Your task to perform on an android device: search for starred emails in the gmail app Image 0: 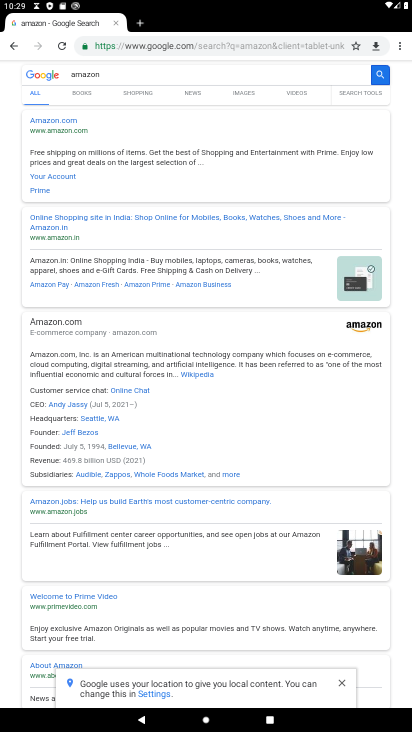
Step 0: press home button
Your task to perform on an android device: search for starred emails in the gmail app Image 1: 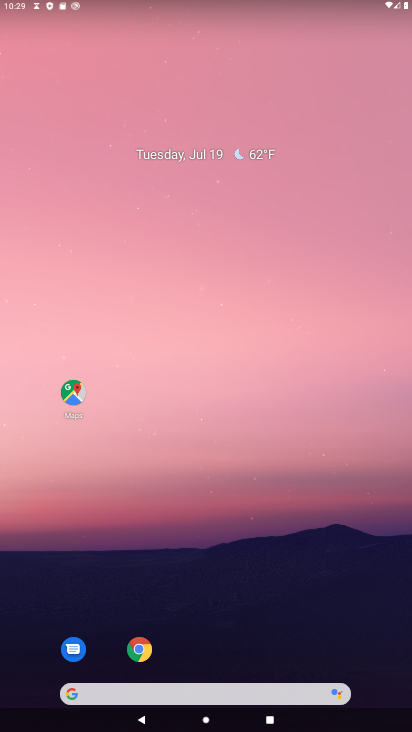
Step 1: drag from (272, 643) to (265, 94)
Your task to perform on an android device: search for starred emails in the gmail app Image 2: 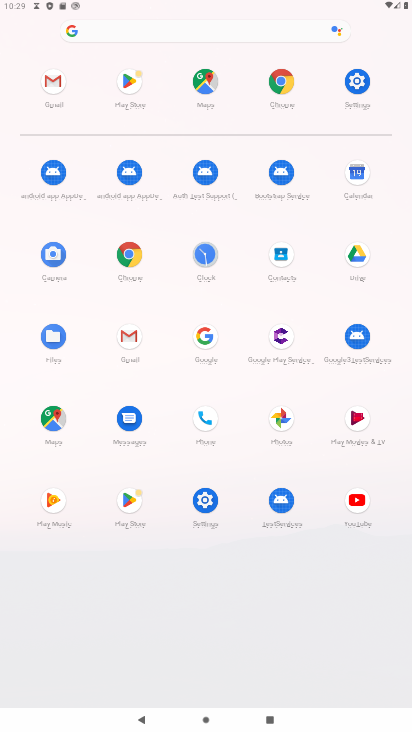
Step 2: click (136, 331)
Your task to perform on an android device: search for starred emails in the gmail app Image 3: 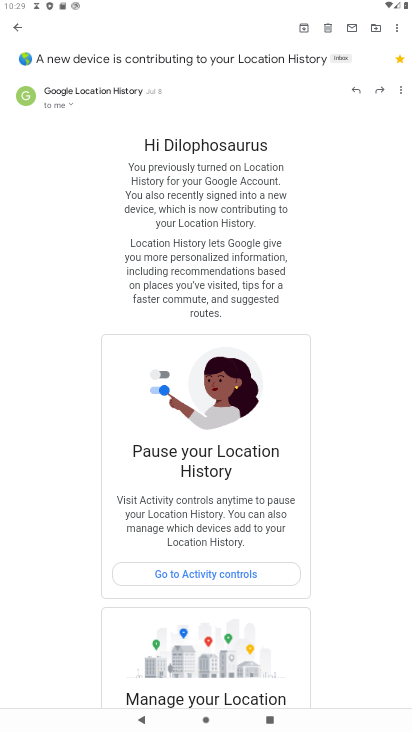
Step 3: press back button
Your task to perform on an android device: search for starred emails in the gmail app Image 4: 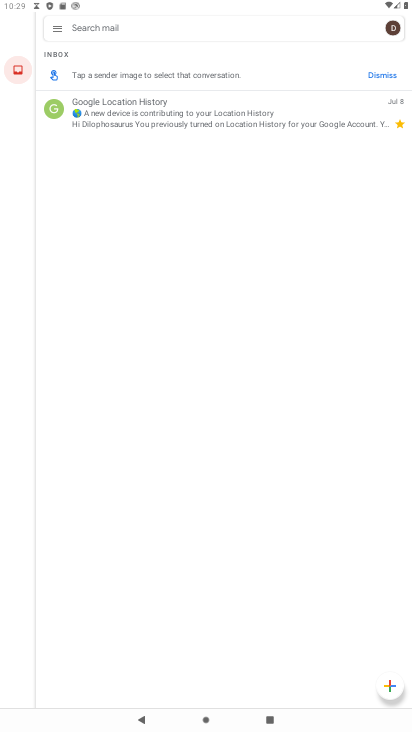
Step 4: press back button
Your task to perform on an android device: search for starred emails in the gmail app Image 5: 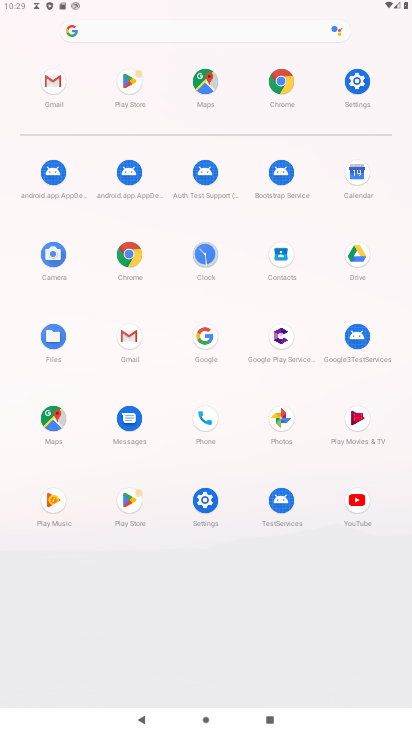
Step 5: click (134, 347)
Your task to perform on an android device: search for starred emails in the gmail app Image 6: 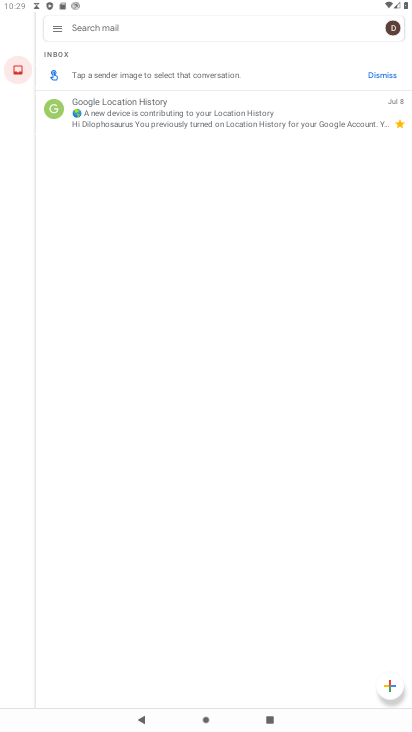
Step 6: click (11, 63)
Your task to perform on an android device: search for starred emails in the gmail app Image 7: 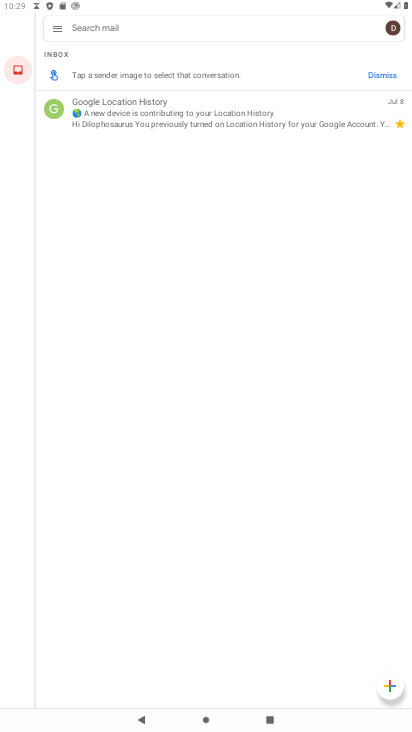
Step 7: click (53, 28)
Your task to perform on an android device: search for starred emails in the gmail app Image 8: 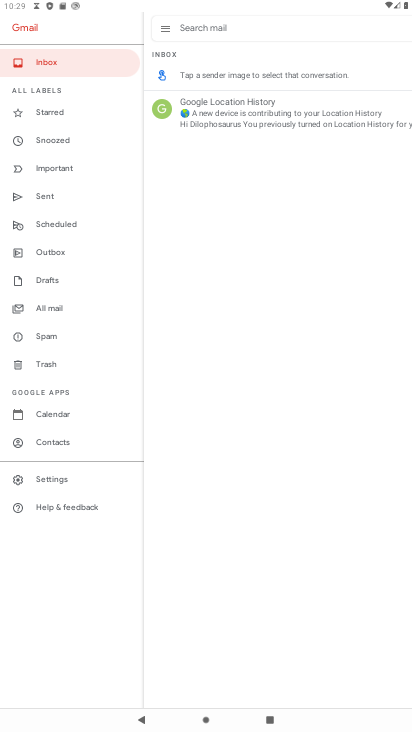
Step 8: click (49, 105)
Your task to perform on an android device: search for starred emails in the gmail app Image 9: 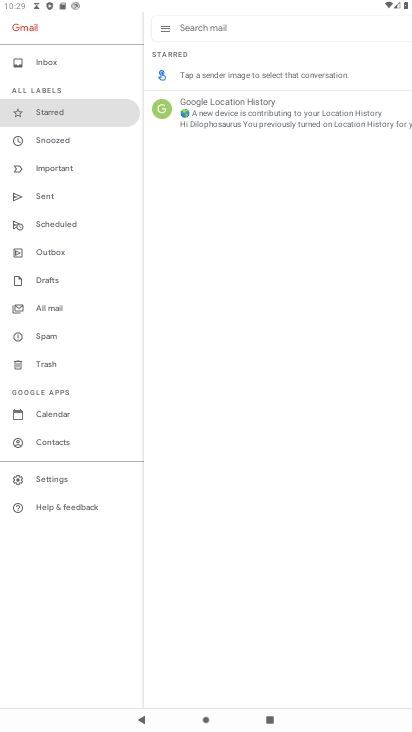
Step 9: task complete